Your task to perform on an android device: Show me productivity apps on the Play Store Image 0: 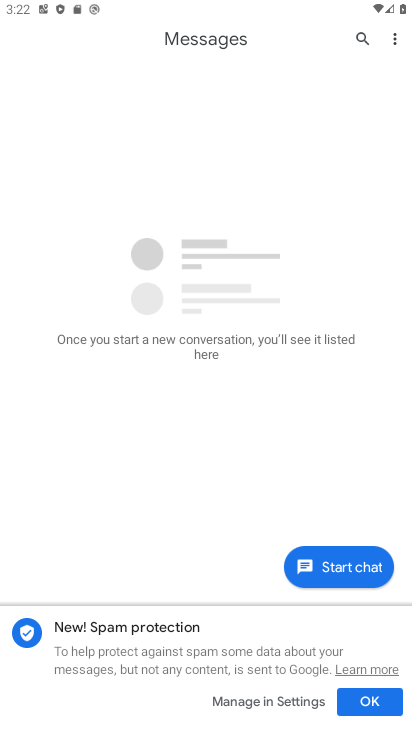
Step 0: press home button
Your task to perform on an android device: Show me productivity apps on the Play Store Image 1: 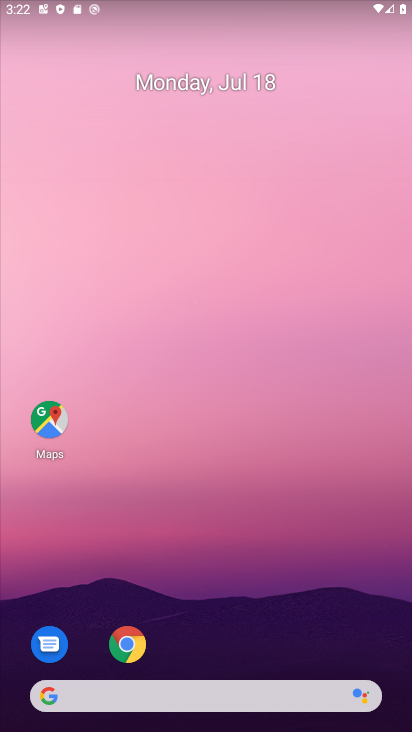
Step 1: drag from (377, 650) to (302, 196)
Your task to perform on an android device: Show me productivity apps on the Play Store Image 2: 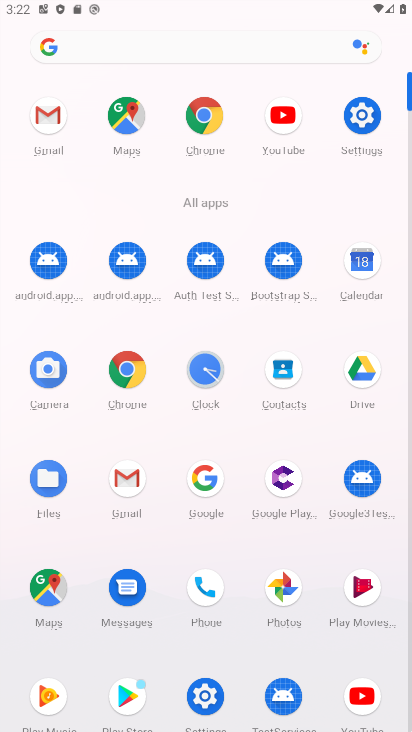
Step 2: click (127, 695)
Your task to perform on an android device: Show me productivity apps on the Play Store Image 3: 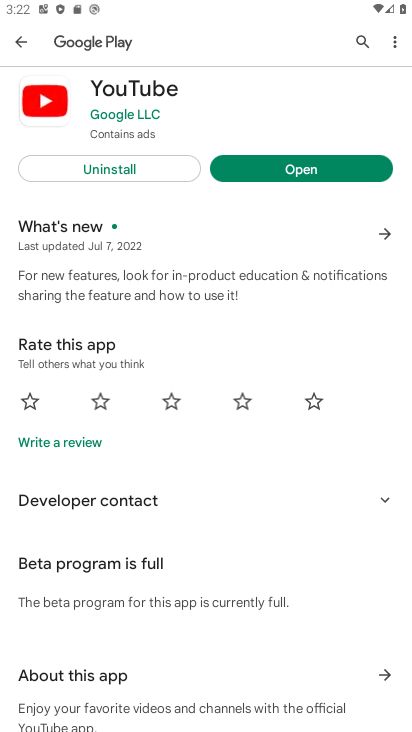
Step 3: press back button
Your task to perform on an android device: Show me productivity apps on the Play Store Image 4: 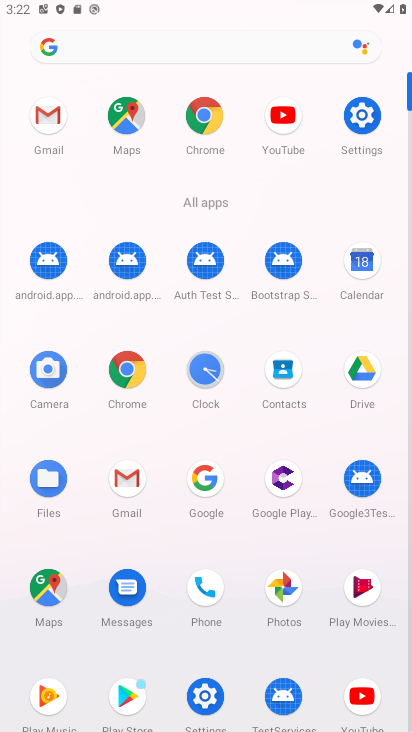
Step 4: click (123, 693)
Your task to perform on an android device: Show me productivity apps on the Play Store Image 5: 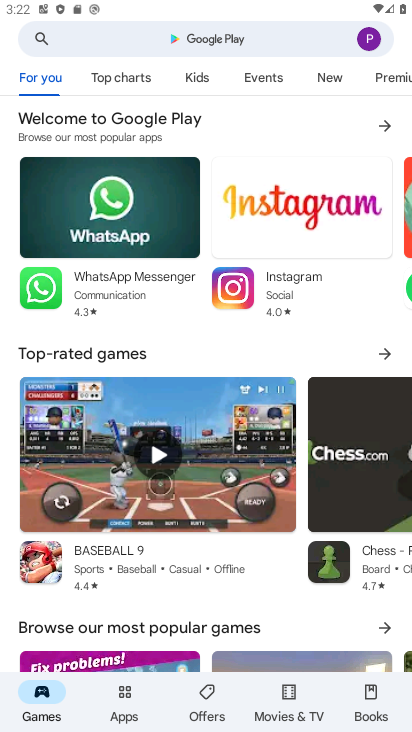
Step 5: click (123, 693)
Your task to perform on an android device: Show me productivity apps on the Play Store Image 6: 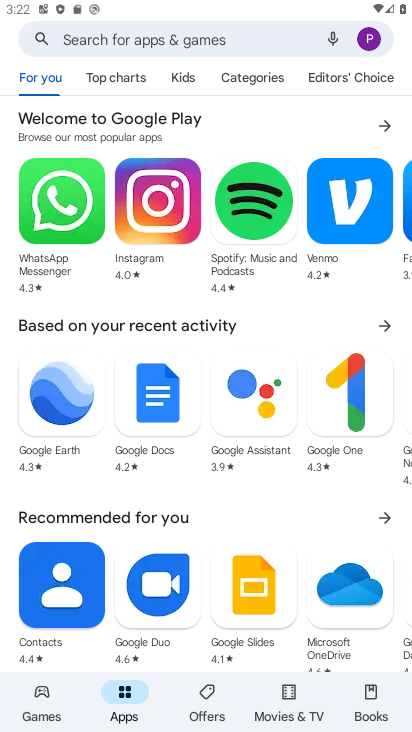
Step 6: click (252, 81)
Your task to perform on an android device: Show me productivity apps on the Play Store Image 7: 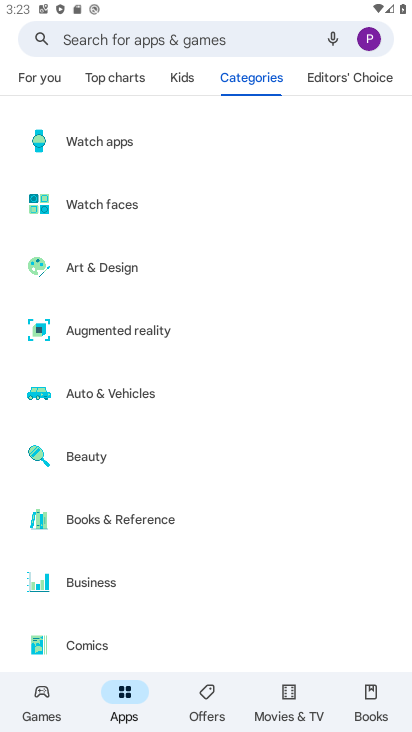
Step 7: drag from (209, 606) to (205, 138)
Your task to perform on an android device: Show me productivity apps on the Play Store Image 8: 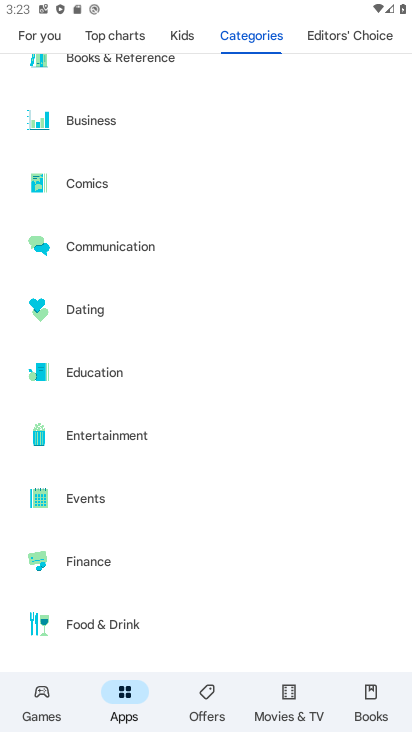
Step 8: drag from (192, 608) to (213, 122)
Your task to perform on an android device: Show me productivity apps on the Play Store Image 9: 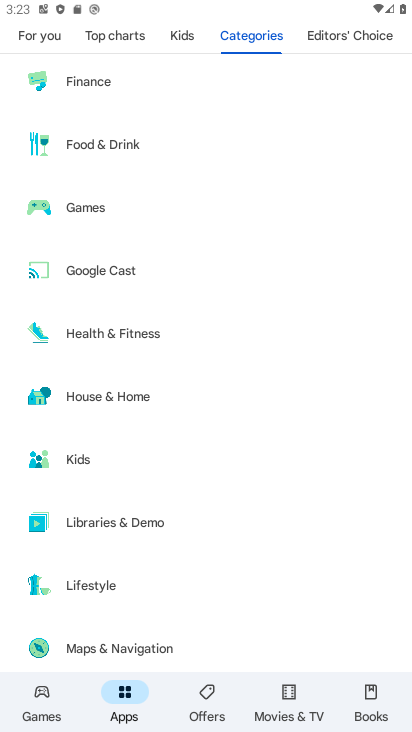
Step 9: drag from (200, 636) to (228, 186)
Your task to perform on an android device: Show me productivity apps on the Play Store Image 10: 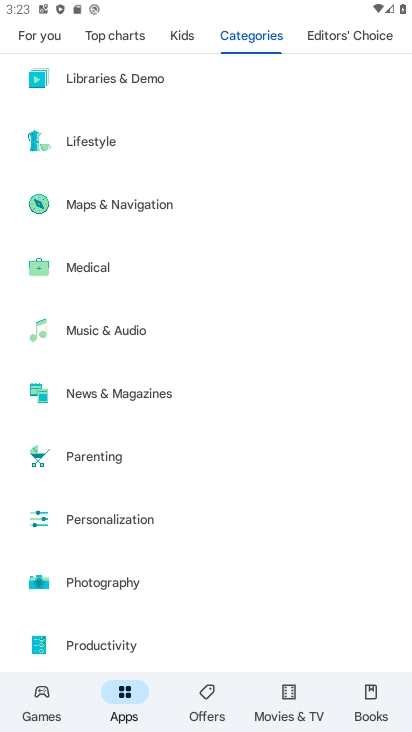
Step 10: click (97, 640)
Your task to perform on an android device: Show me productivity apps on the Play Store Image 11: 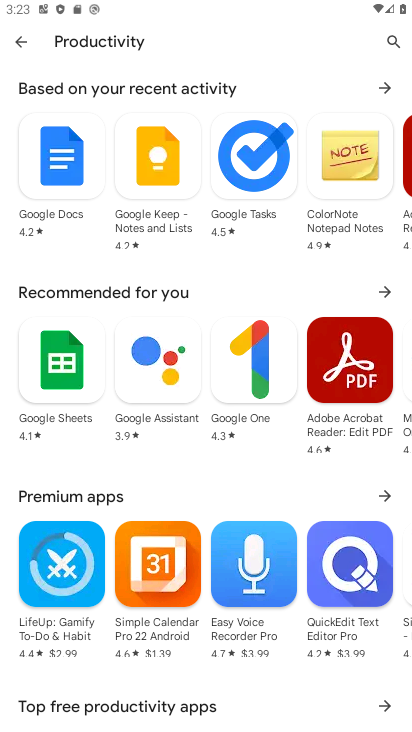
Step 11: drag from (252, 258) to (251, 91)
Your task to perform on an android device: Show me productivity apps on the Play Store Image 12: 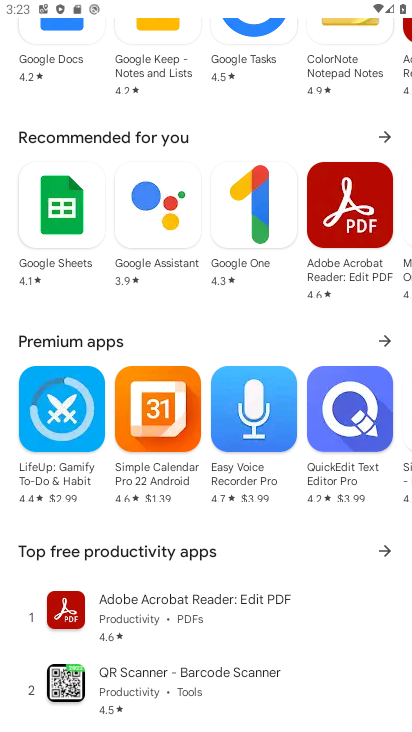
Step 12: drag from (358, 669) to (283, 186)
Your task to perform on an android device: Show me productivity apps on the Play Store Image 13: 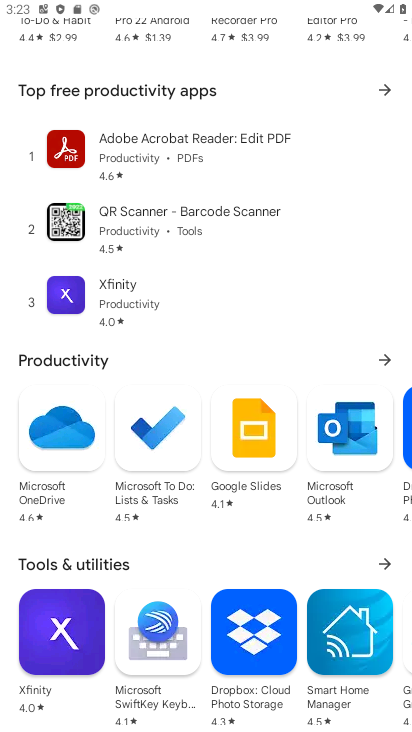
Step 13: click (384, 359)
Your task to perform on an android device: Show me productivity apps on the Play Store Image 14: 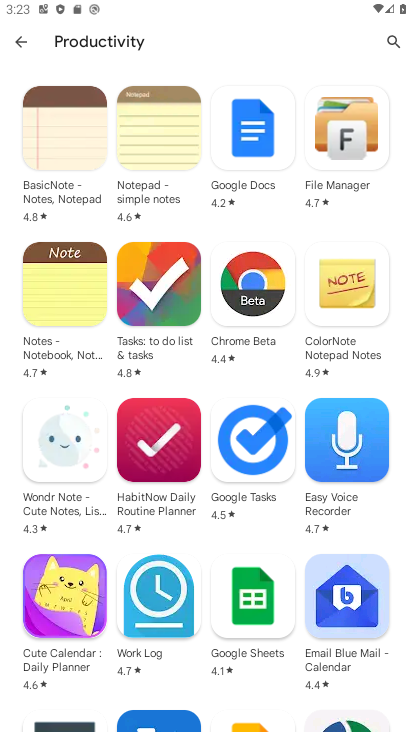
Step 14: task complete